Your task to perform on an android device: Open settings Image 0: 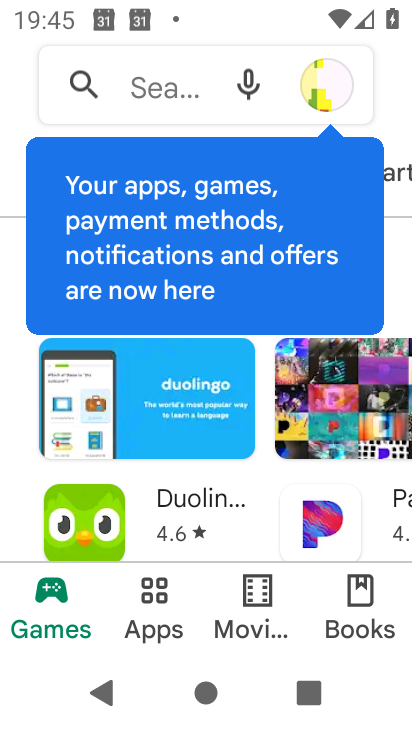
Step 0: press home button
Your task to perform on an android device: Open settings Image 1: 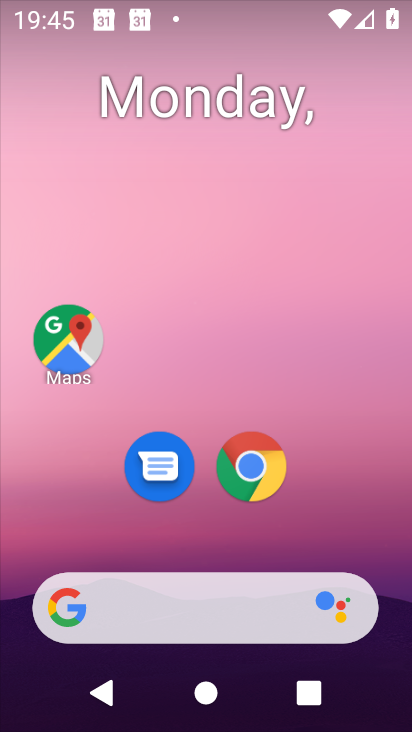
Step 1: drag from (356, 569) to (269, 216)
Your task to perform on an android device: Open settings Image 2: 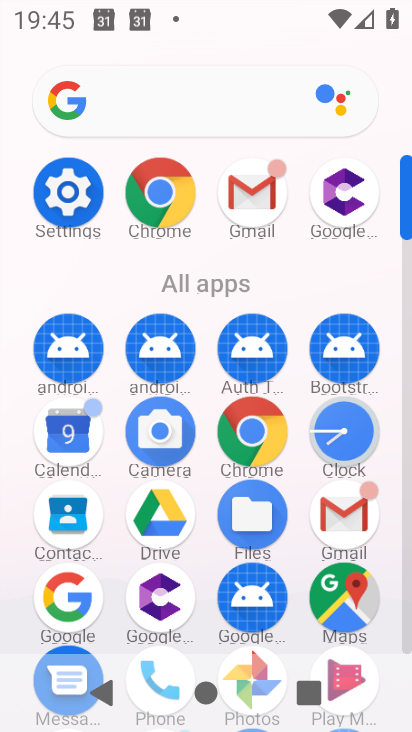
Step 2: click (89, 205)
Your task to perform on an android device: Open settings Image 3: 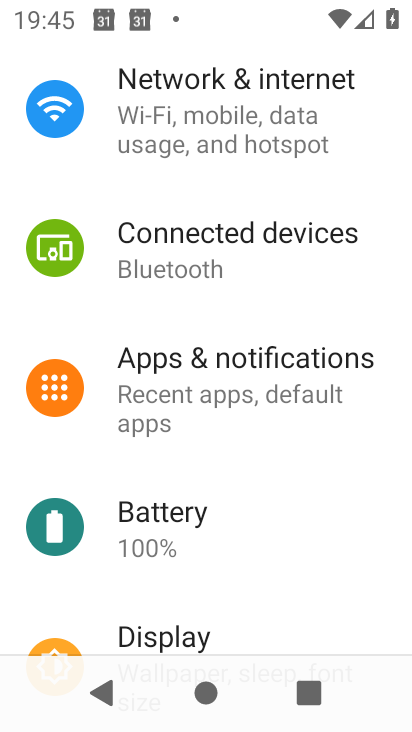
Step 3: task complete